Your task to perform on an android device: Empty the shopping cart on amazon. Image 0: 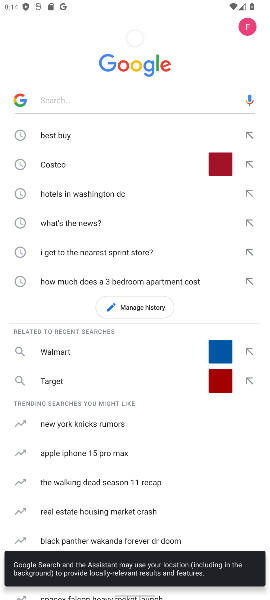
Step 0: press home button
Your task to perform on an android device: Empty the shopping cart on amazon. Image 1: 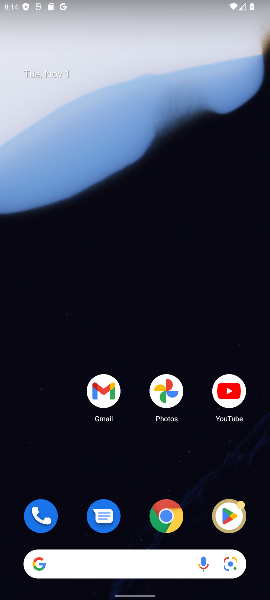
Step 1: drag from (138, 483) to (50, 6)
Your task to perform on an android device: Empty the shopping cart on amazon. Image 2: 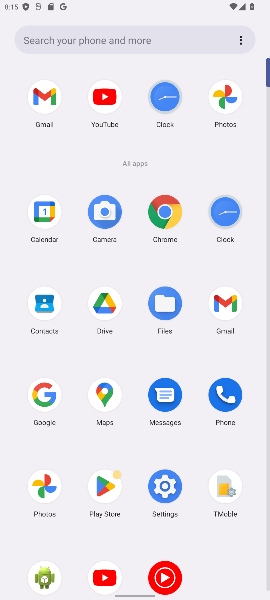
Step 2: click (164, 209)
Your task to perform on an android device: Empty the shopping cart on amazon. Image 3: 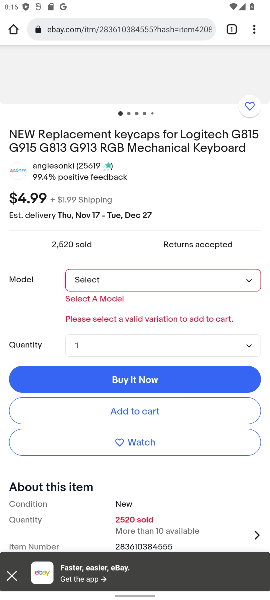
Step 3: click (128, 23)
Your task to perform on an android device: Empty the shopping cart on amazon. Image 4: 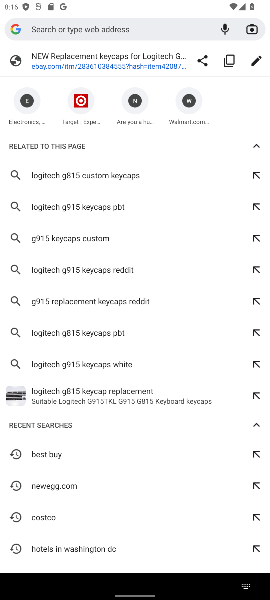
Step 4: type "amazon"
Your task to perform on an android device: Empty the shopping cart on amazon. Image 5: 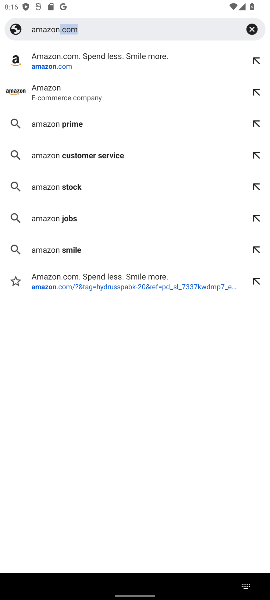
Step 5: click (79, 62)
Your task to perform on an android device: Empty the shopping cart on amazon. Image 6: 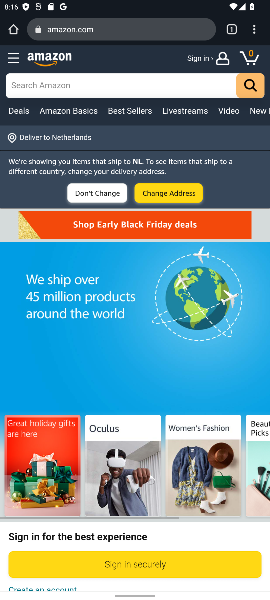
Step 6: click (62, 85)
Your task to perform on an android device: Empty the shopping cart on amazon. Image 7: 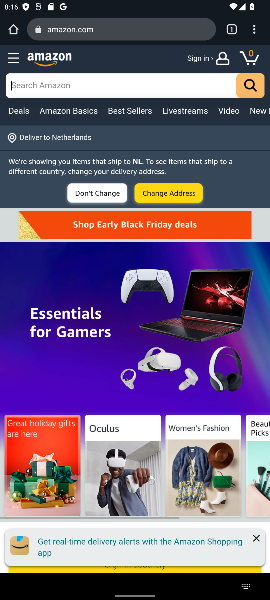
Step 7: click (254, 54)
Your task to perform on an android device: Empty the shopping cart on amazon. Image 8: 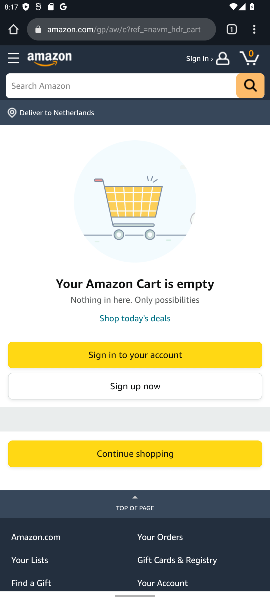
Step 8: task complete